Your task to perform on an android device: toggle notifications settings in the gmail app Image 0: 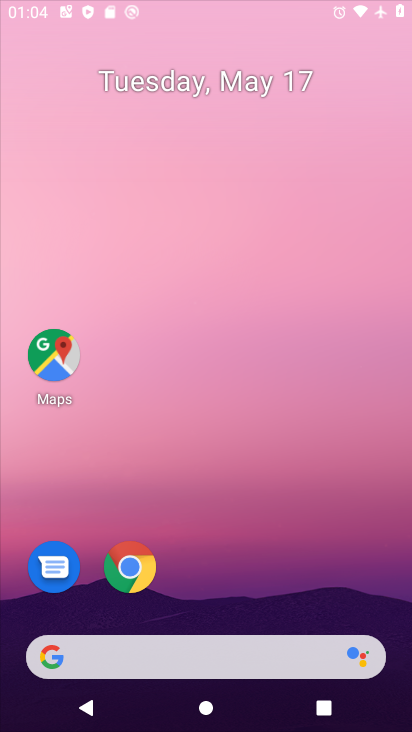
Step 0: click (231, 297)
Your task to perform on an android device: toggle notifications settings in the gmail app Image 1: 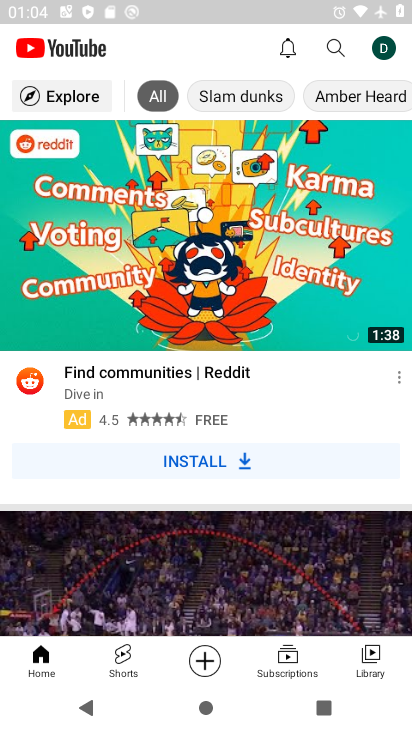
Step 1: press home button
Your task to perform on an android device: toggle notifications settings in the gmail app Image 2: 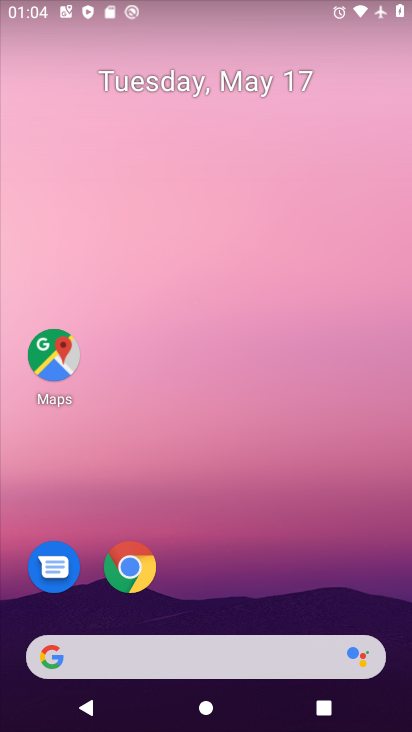
Step 2: drag from (214, 457) to (171, 72)
Your task to perform on an android device: toggle notifications settings in the gmail app Image 3: 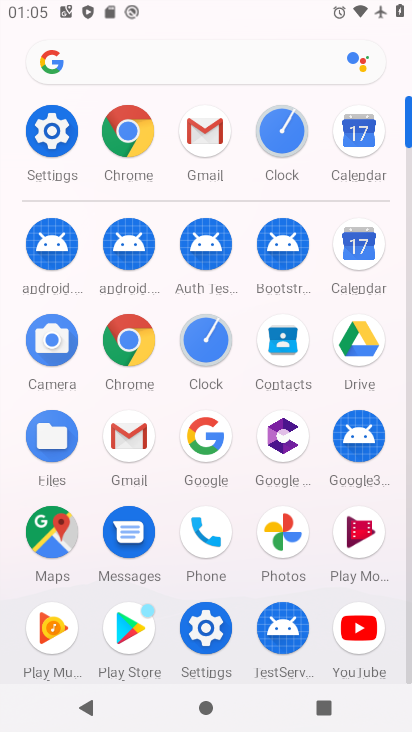
Step 3: click (124, 438)
Your task to perform on an android device: toggle notifications settings in the gmail app Image 4: 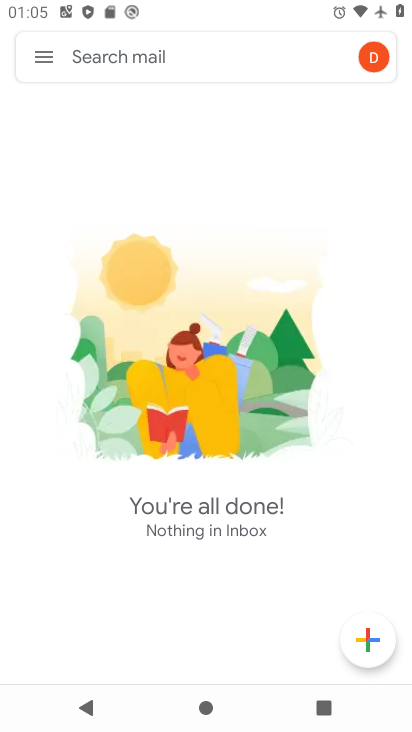
Step 4: click (33, 56)
Your task to perform on an android device: toggle notifications settings in the gmail app Image 5: 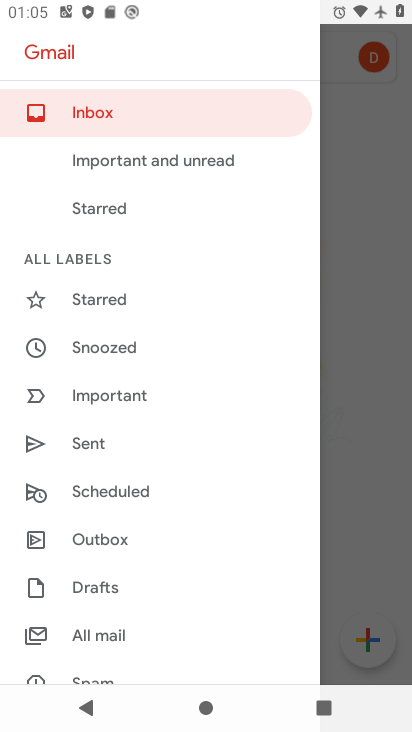
Step 5: drag from (153, 578) to (115, 200)
Your task to perform on an android device: toggle notifications settings in the gmail app Image 6: 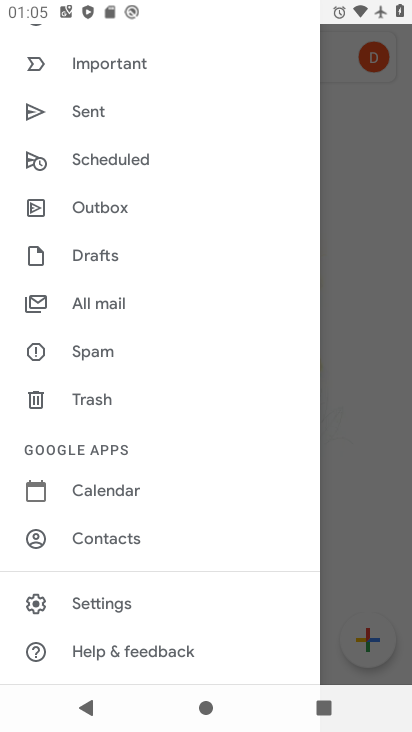
Step 6: drag from (152, 513) to (163, 280)
Your task to perform on an android device: toggle notifications settings in the gmail app Image 7: 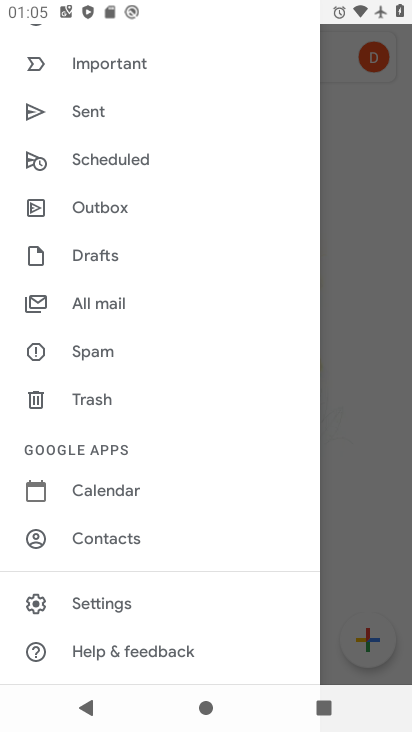
Step 7: click (88, 595)
Your task to perform on an android device: toggle notifications settings in the gmail app Image 8: 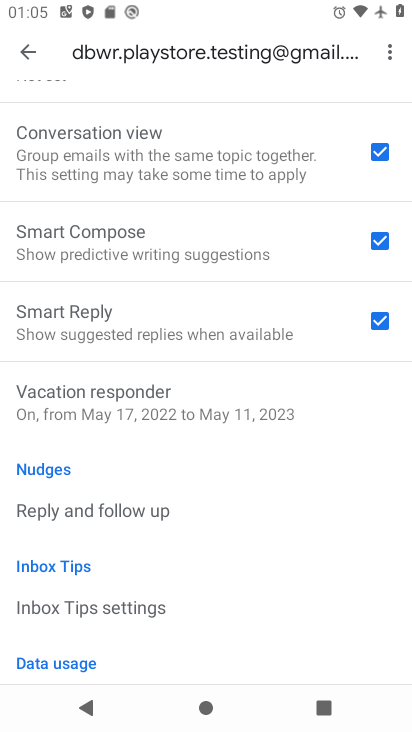
Step 8: click (22, 37)
Your task to perform on an android device: toggle notifications settings in the gmail app Image 9: 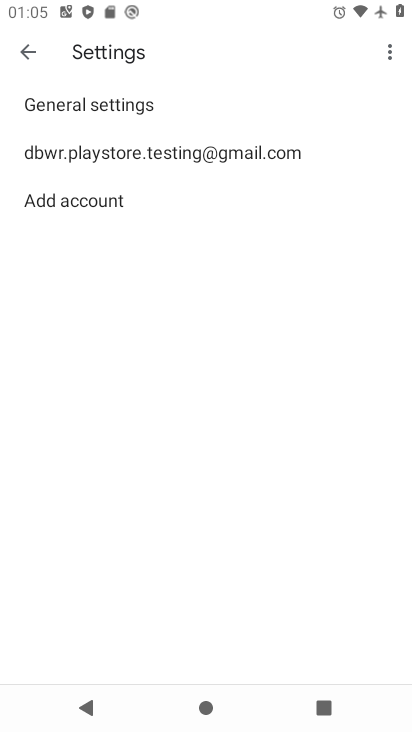
Step 9: click (79, 96)
Your task to perform on an android device: toggle notifications settings in the gmail app Image 10: 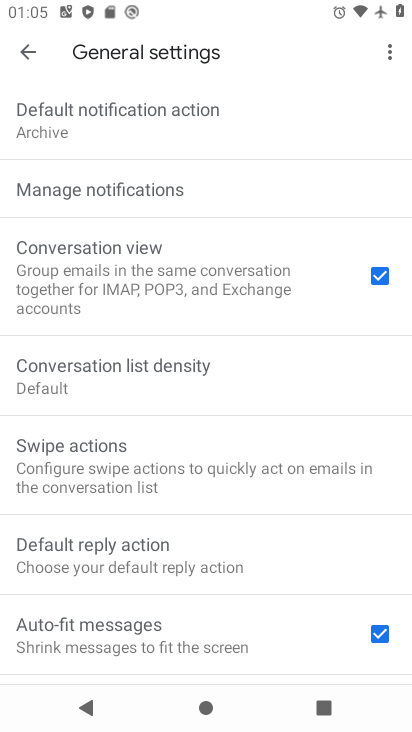
Step 10: click (106, 181)
Your task to perform on an android device: toggle notifications settings in the gmail app Image 11: 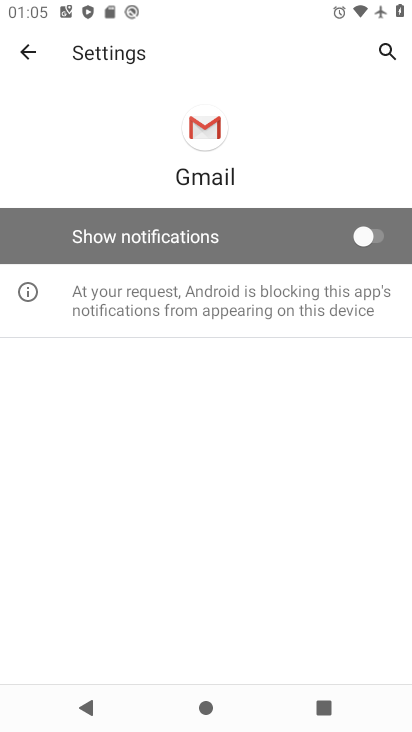
Step 11: click (359, 227)
Your task to perform on an android device: toggle notifications settings in the gmail app Image 12: 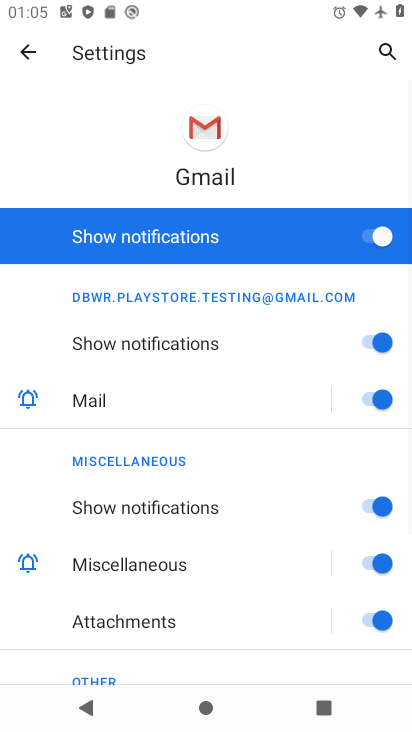
Step 12: task complete